Your task to perform on an android device: see creations saved in the google photos Image 0: 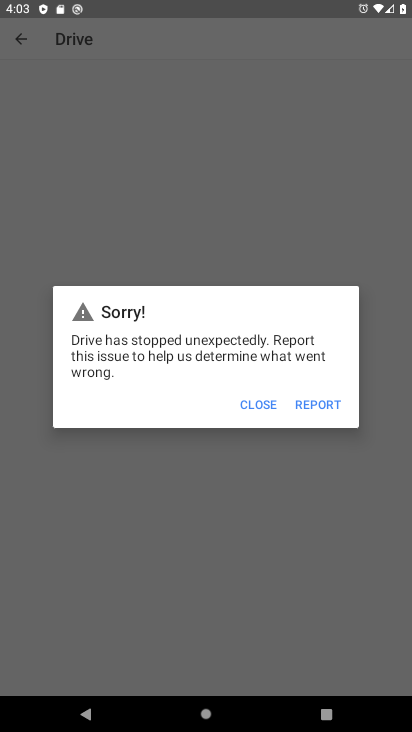
Step 0: press home button
Your task to perform on an android device: see creations saved in the google photos Image 1: 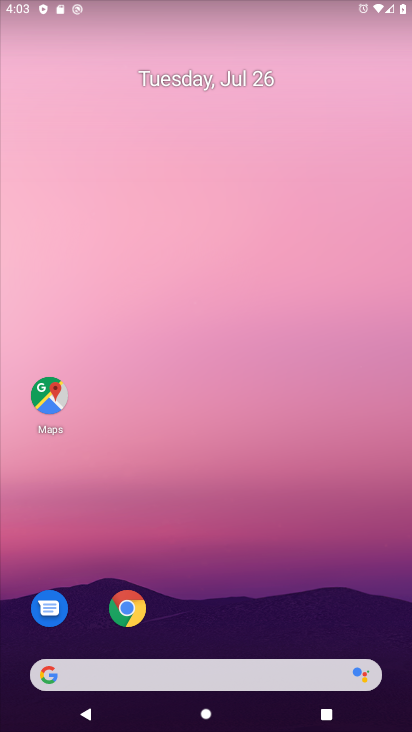
Step 1: drag from (387, 711) to (319, 209)
Your task to perform on an android device: see creations saved in the google photos Image 2: 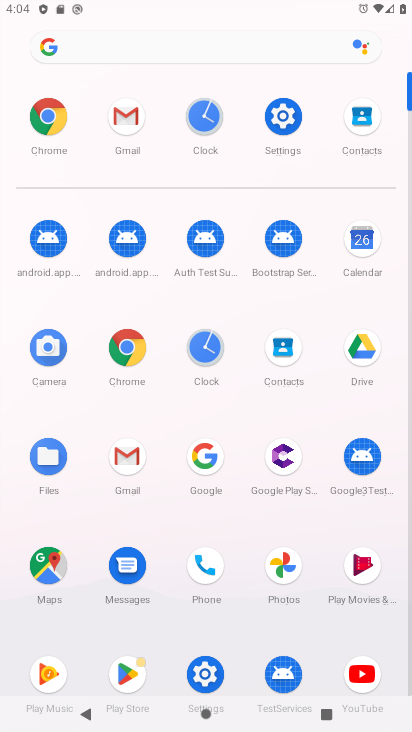
Step 2: click (274, 572)
Your task to perform on an android device: see creations saved in the google photos Image 3: 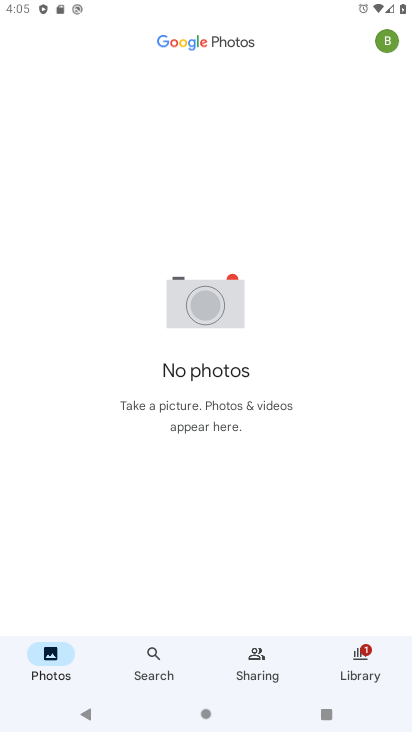
Step 3: click (60, 659)
Your task to perform on an android device: see creations saved in the google photos Image 4: 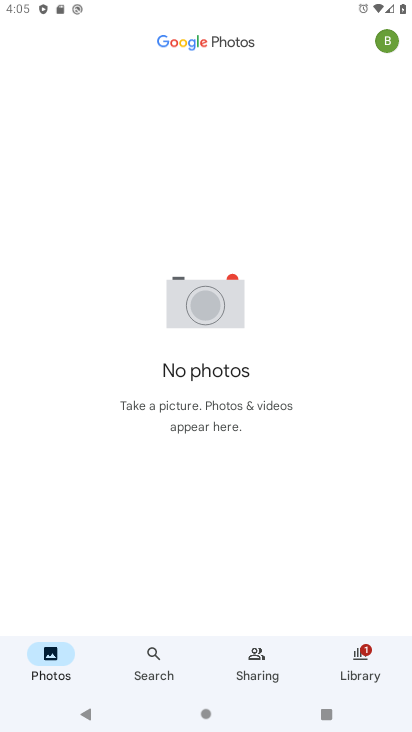
Step 4: task complete